Your task to perform on an android device: Open Youtube and go to "Your channel" Image 0: 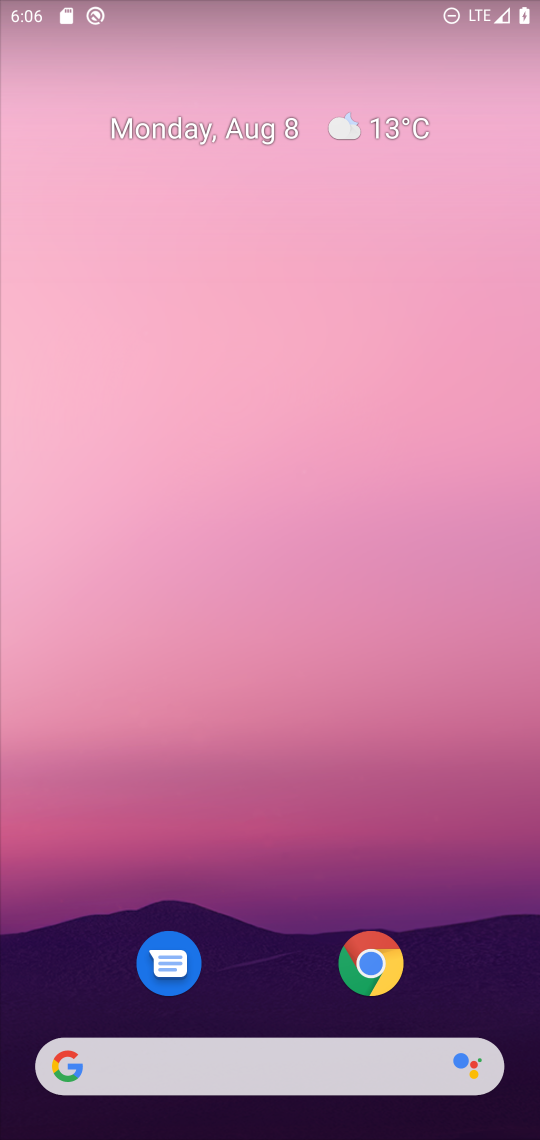
Step 0: drag from (250, 942) to (276, 132)
Your task to perform on an android device: Open Youtube and go to "Your channel" Image 1: 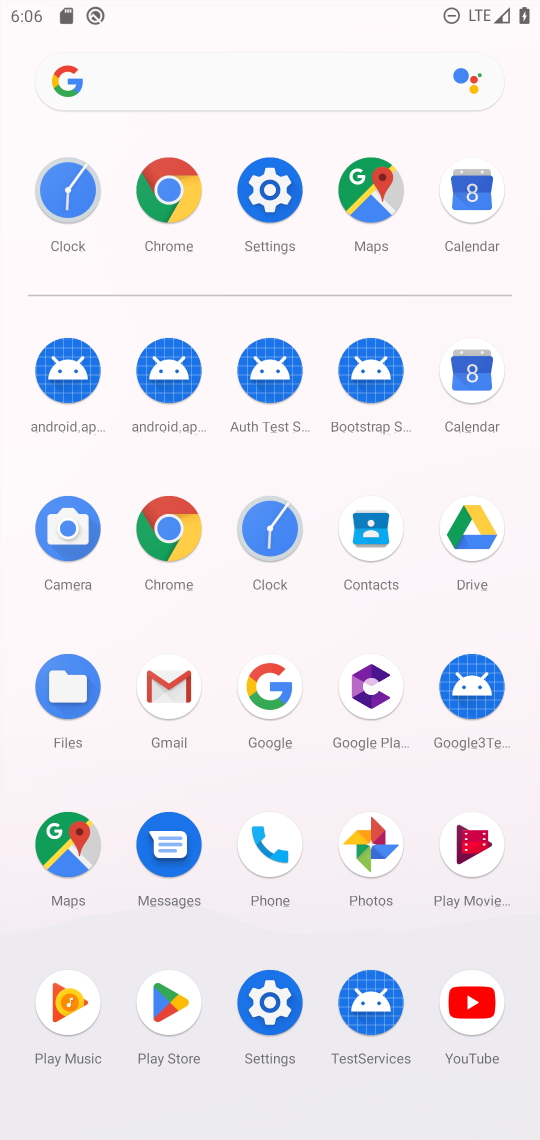
Step 1: click (478, 993)
Your task to perform on an android device: Open Youtube and go to "Your channel" Image 2: 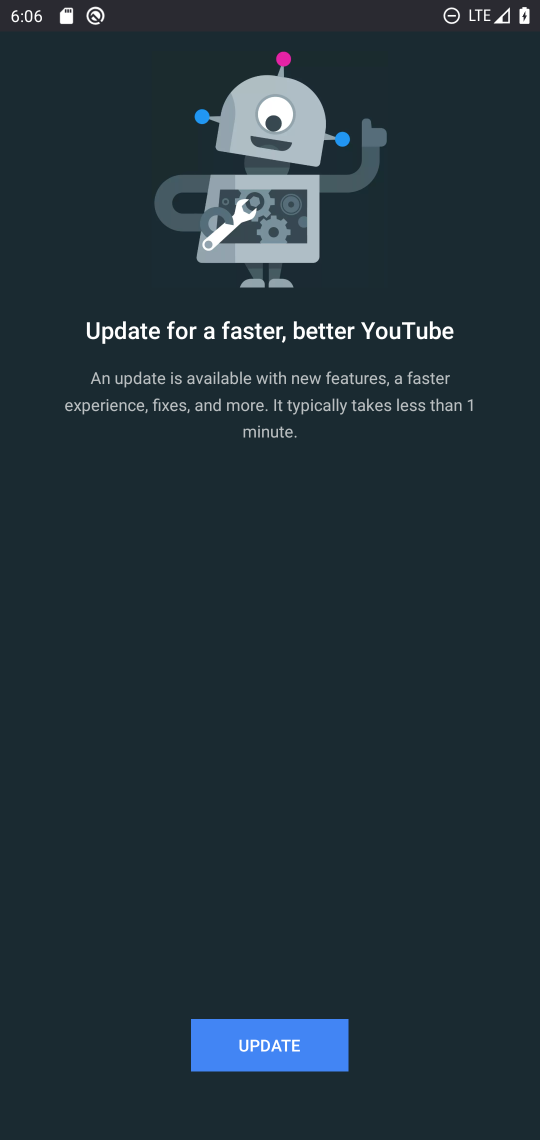
Step 2: click (309, 1030)
Your task to perform on an android device: Open Youtube and go to "Your channel" Image 3: 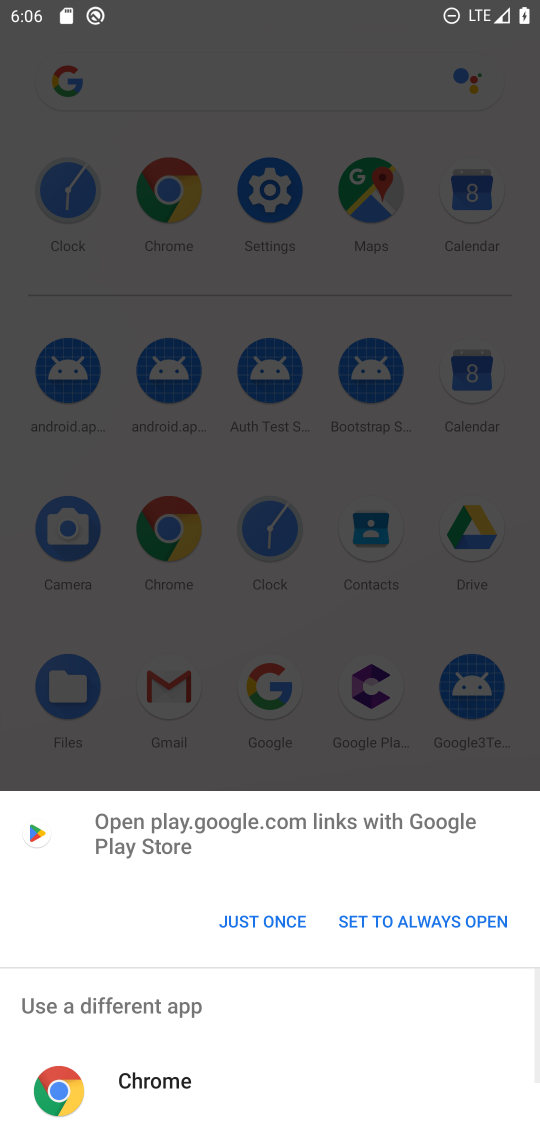
Step 3: click (278, 913)
Your task to perform on an android device: Open Youtube and go to "Your channel" Image 4: 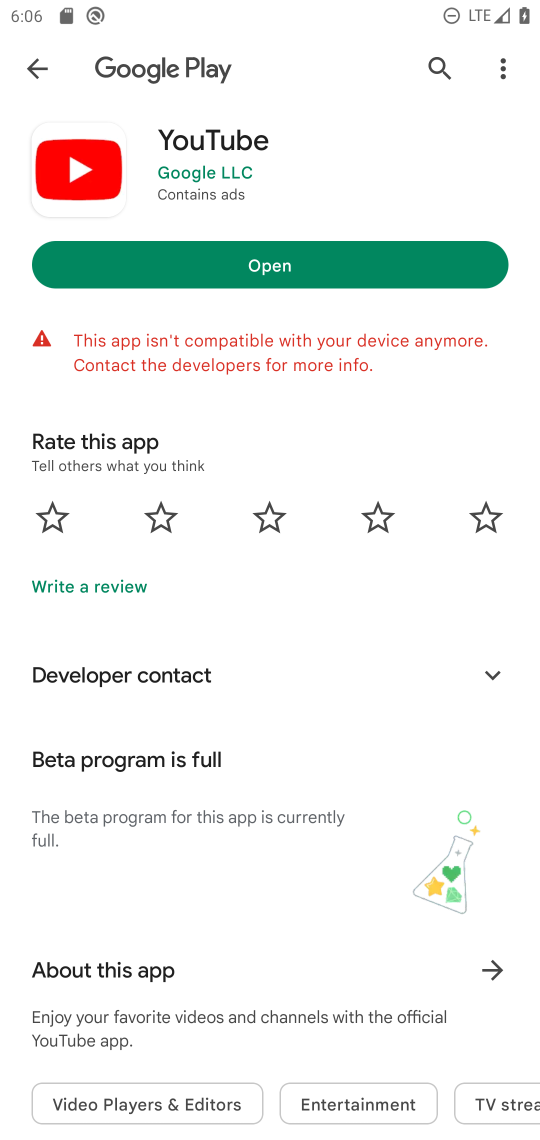
Step 4: task complete